Your task to perform on an android device: Search for Mexican restaurants on Maps Image 0: 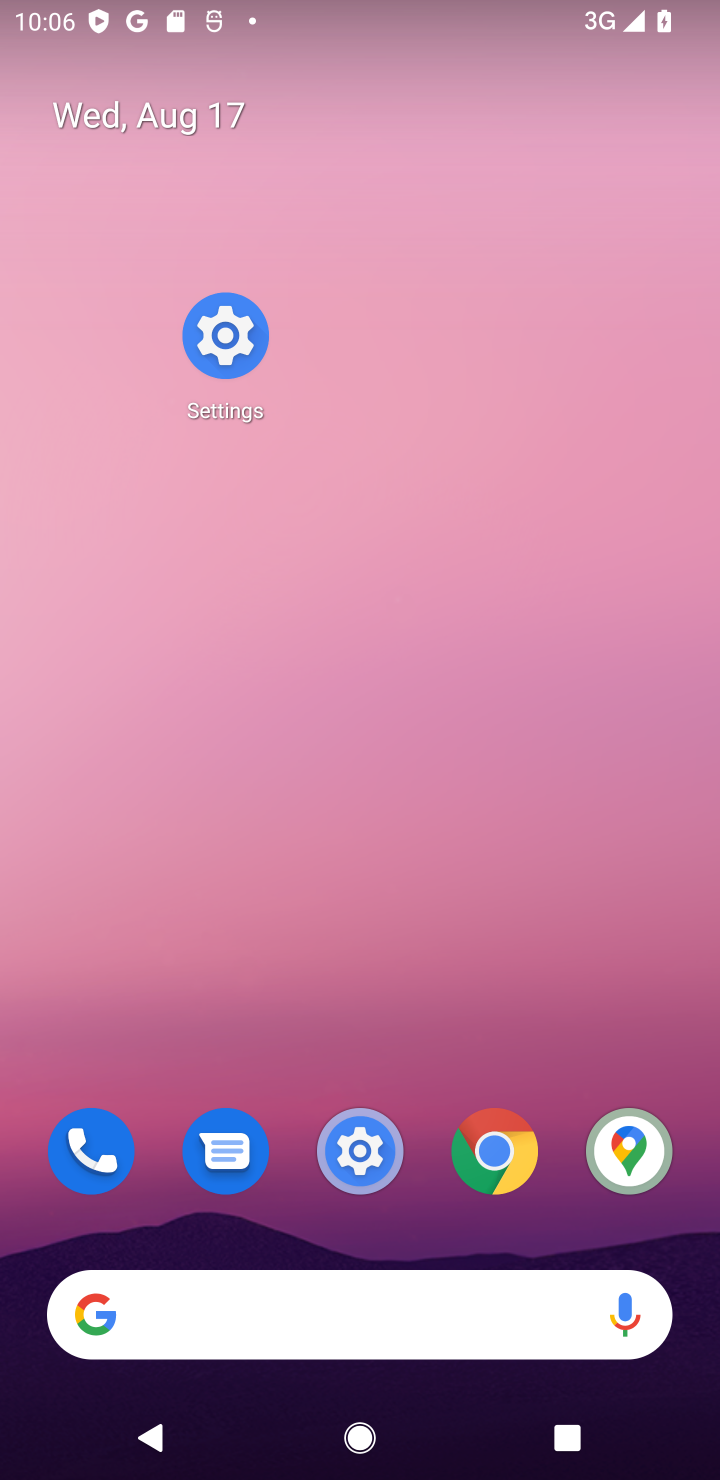
Step 0: click (648, 1159)
Your task to perform on an android device: Search for Mexican restaurants on Maps Image 1: 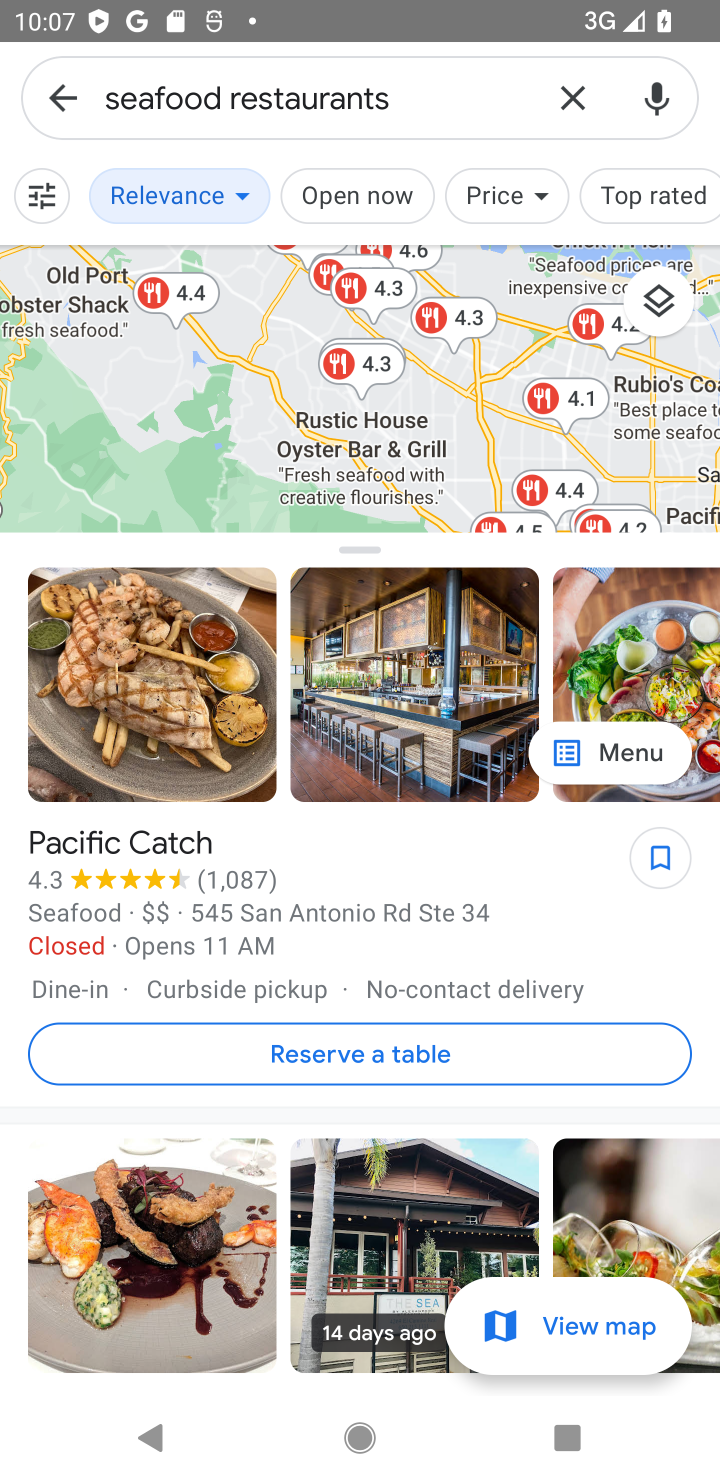
Step 1: click (564, 96)
Your task to perform on an android device: Search for Mexican restaurants on Maps Image 2: 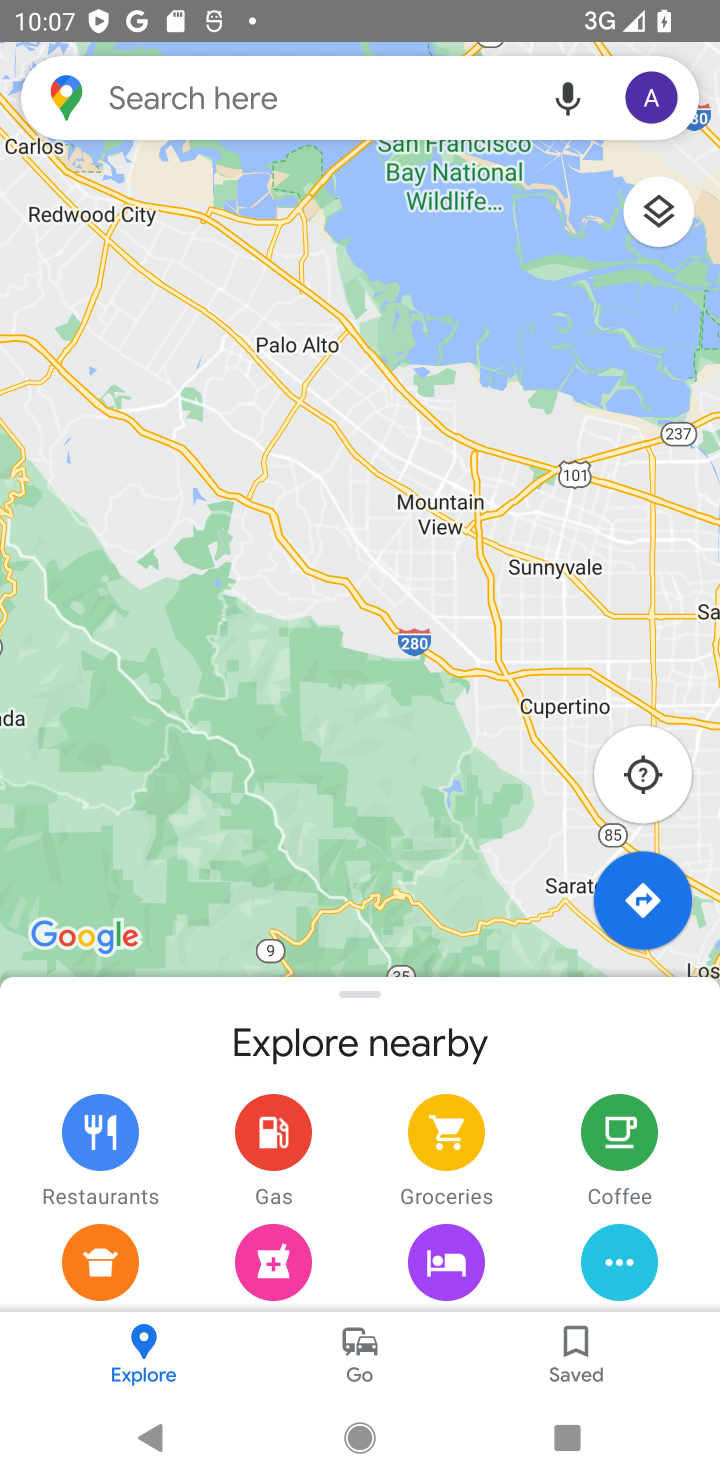
Step 2: click (377, 129)
Your task to perform on an android device: Search for Mexican restaurants on Maps Image 3: 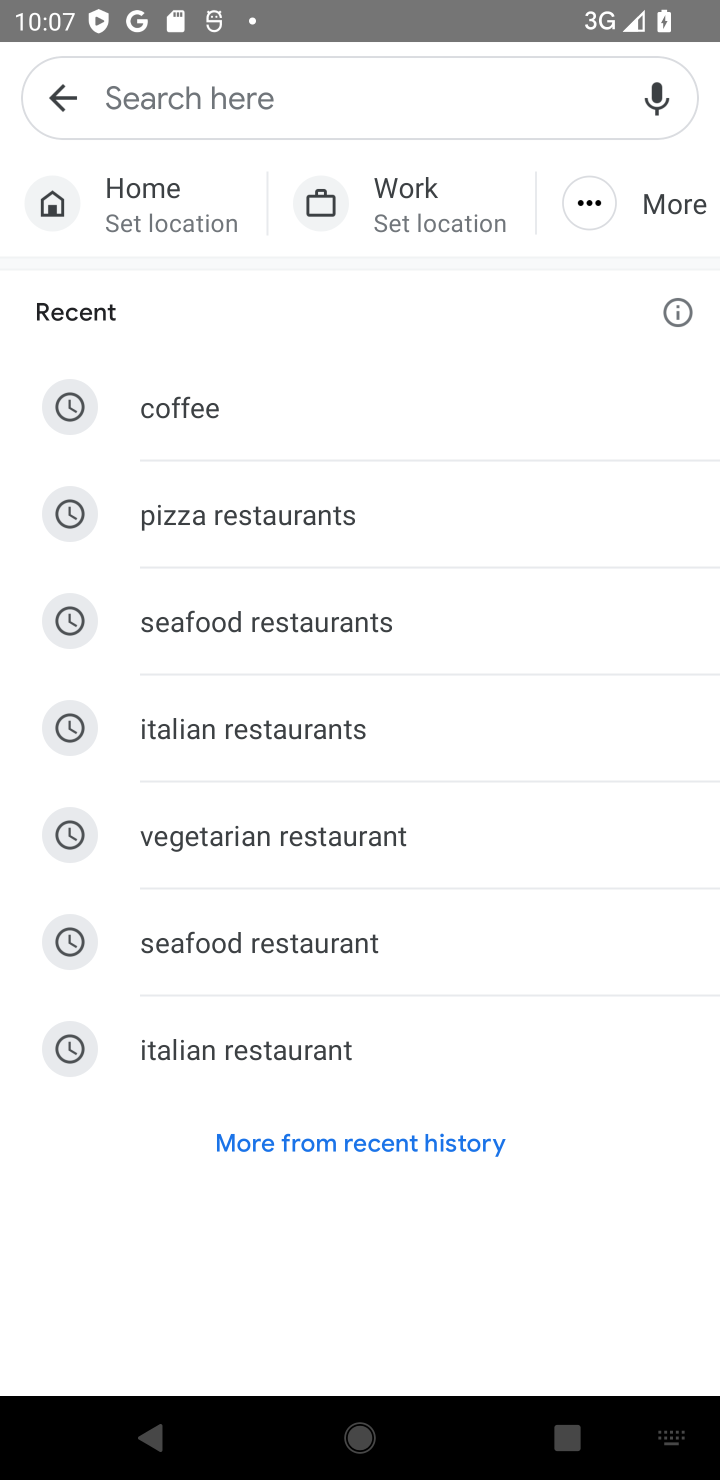
Step 3: type "mexican restaurants"
Your task to perform on an android device: Search for Mexican restaurants on Maps Image 4: 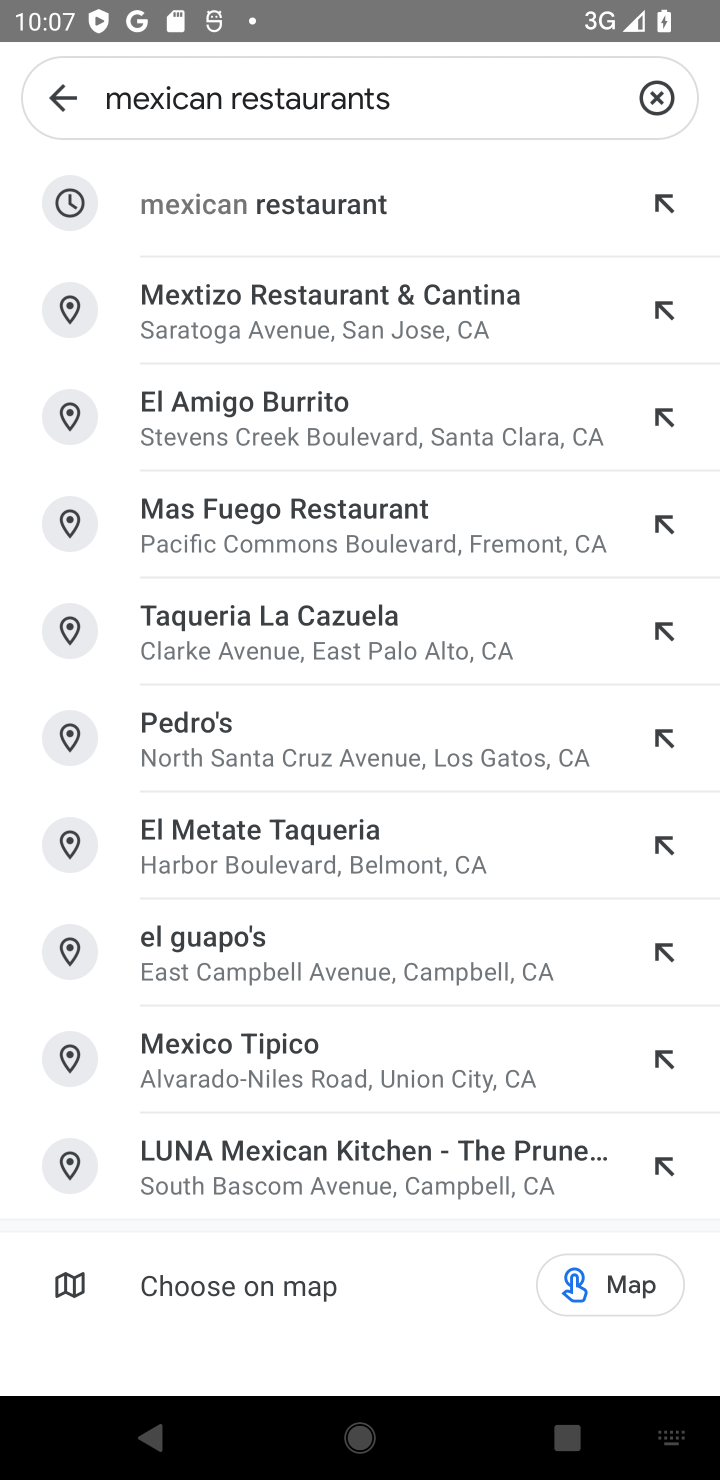
Step 4: click (353, 194)
Your task to perform on an android device: Search for Mexican restaurants on Maps Image 5: 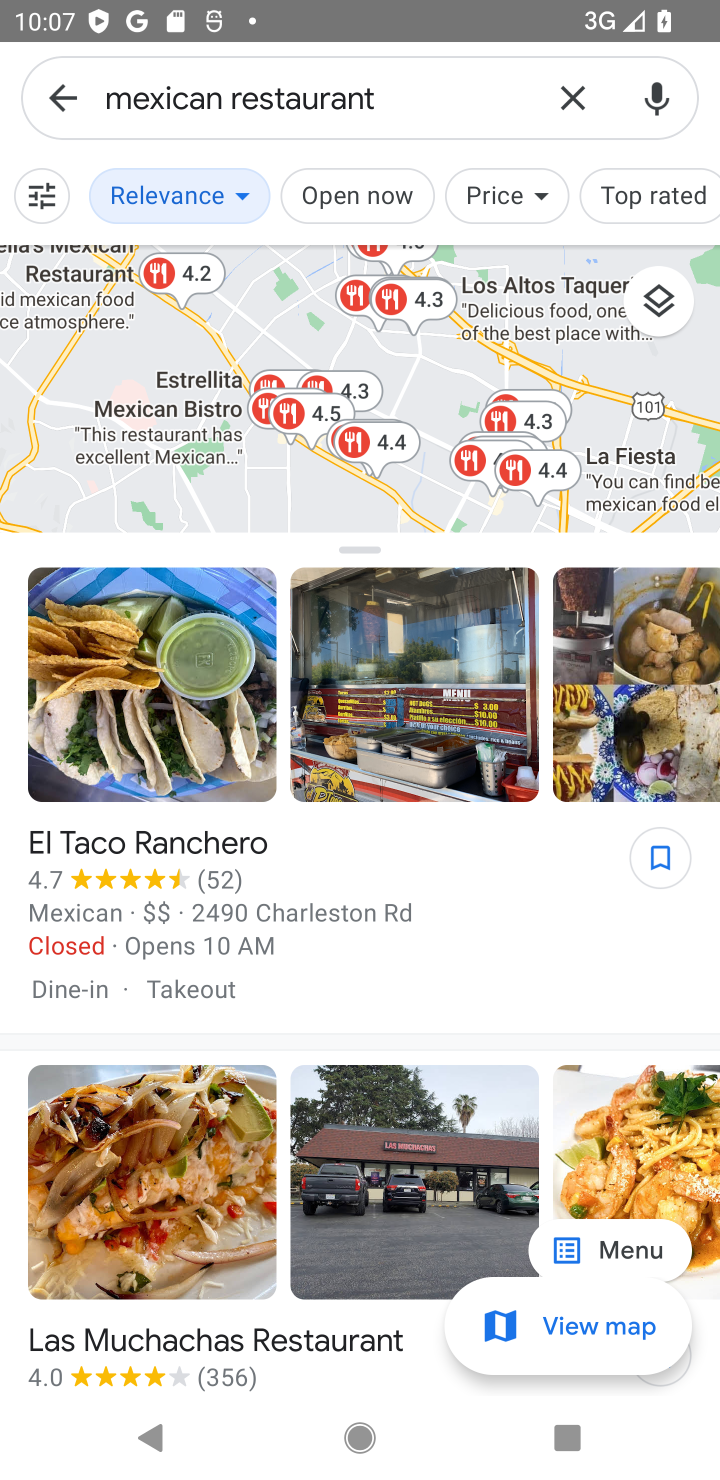
Step 5: task complete